Your task to perform on an android device: remove spam from my inbox in the gmail app Image 0: 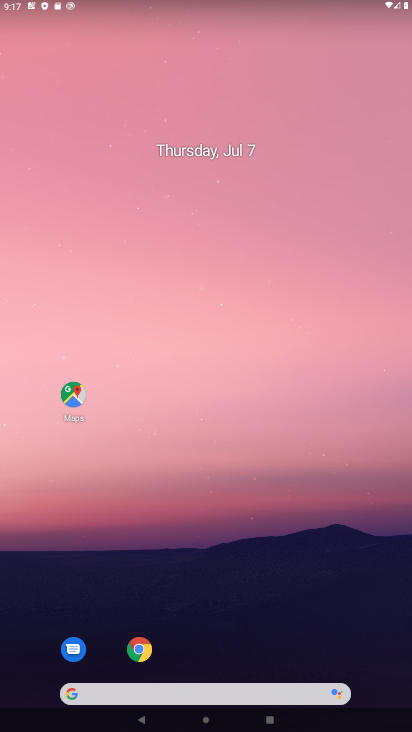
Step 0: drag from (235, 724) to (216, 114)
Your task to perform on an android device: remove spam from my inbox in the gmail app Image 1: 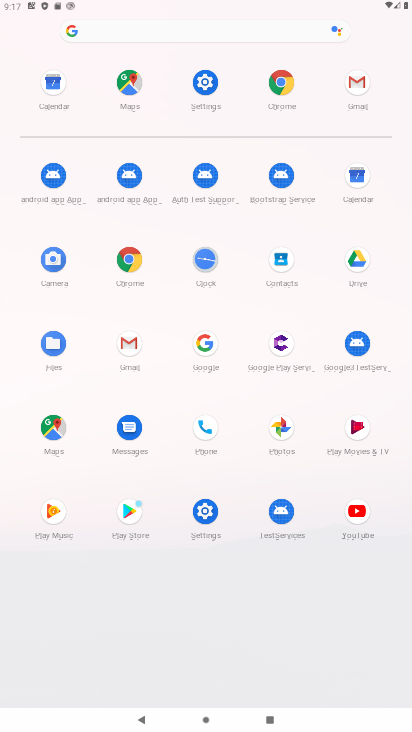
Step 1: click (123, 341)
Your task to perform on an android device: remove spam from my inbox in the gmail app Image 2: 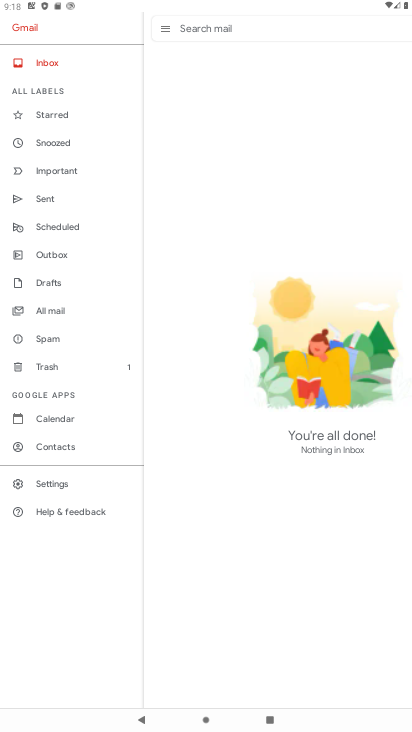
Step 2: task complete